Your task to perform on an android device: manage bookmarks in the chrome app Image 0: 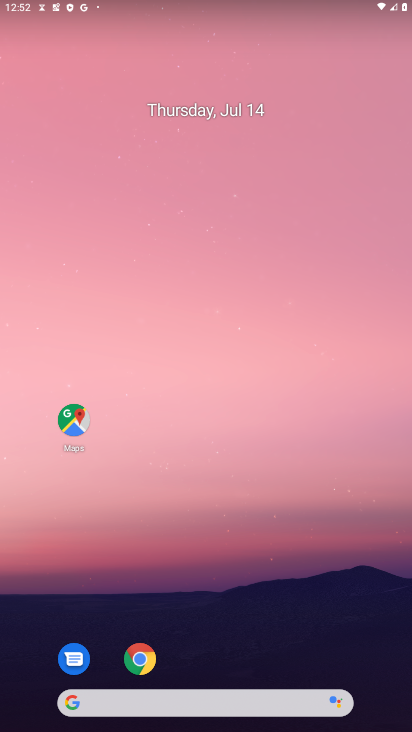
Step 0: click (157, 709)
Your task to perform on an android device: manage bookmarks in the chrome app Image 1: 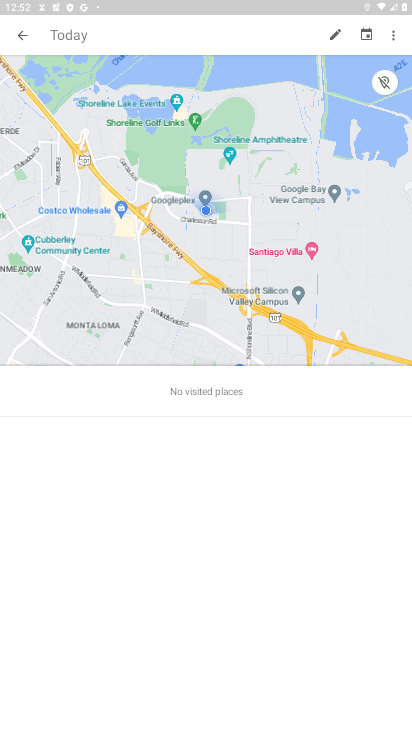
Step 1: press home button
Your task to perform on an android device: manage bookmarks in the chrome app Image 2: 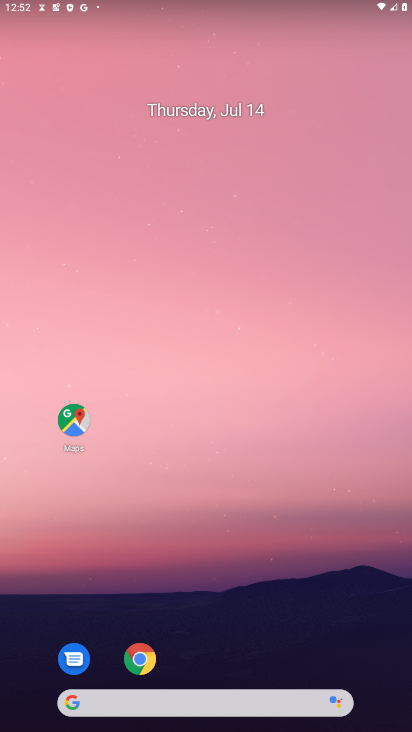
Step 2: click (143, 663)
Your task to perform on an android device: manage bookmarks in the chrome app Image 3: 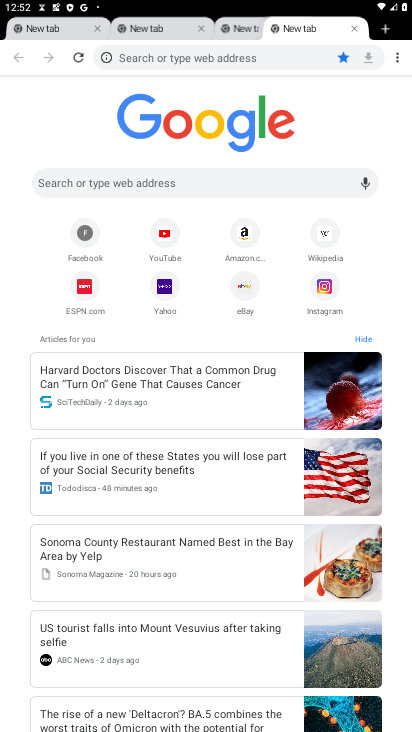
Step 3: click (392, 54)
Your task to perform on an android device: manage bookmarks in the chrome app Image 4: 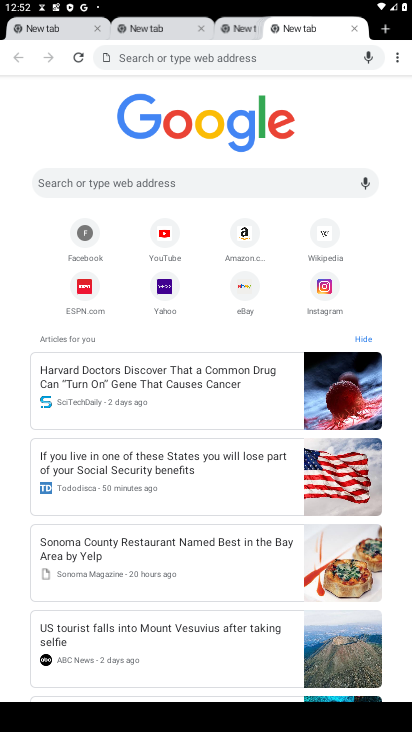
Step 4: click (391, 45)
Your task to perform on an android device: manage bookmarks in the chrome app Image 5: 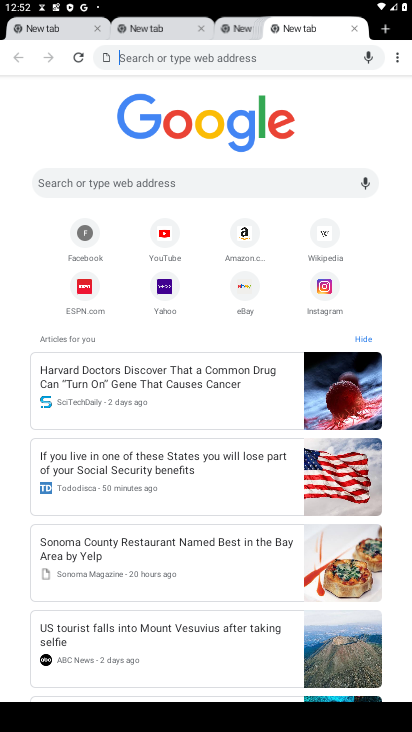
Step 5: task complete